Your task to perform on an android device: Go to Reddit.com Image 0: 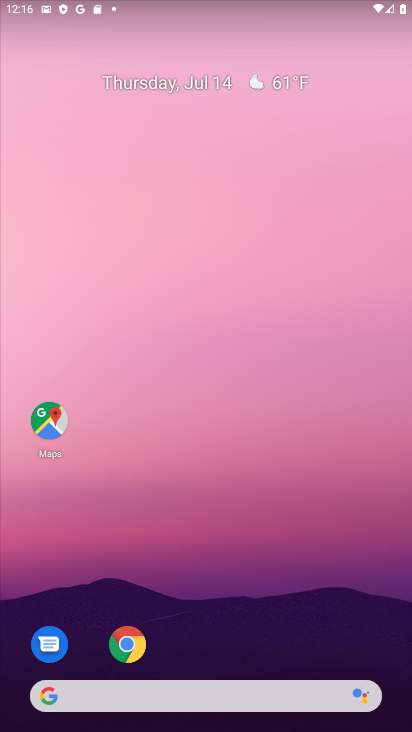
Step 0: click (118, 654)
Your task to perform on an android device: Go to Reddit.com Image 1: 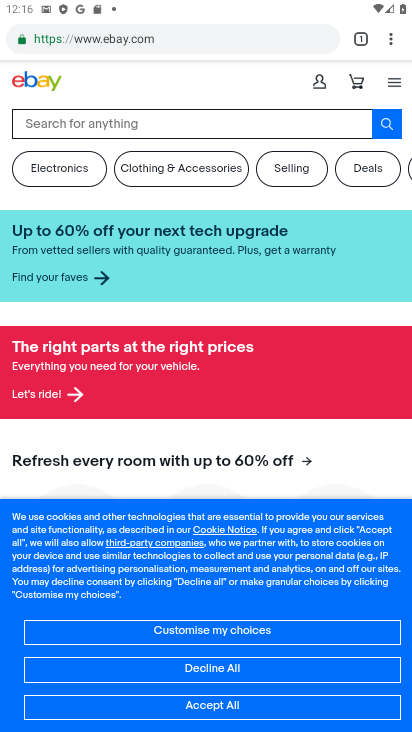
Step 1: click (187, 39)
Your task to perform on an android device: Go to Reddit.com Image 2: 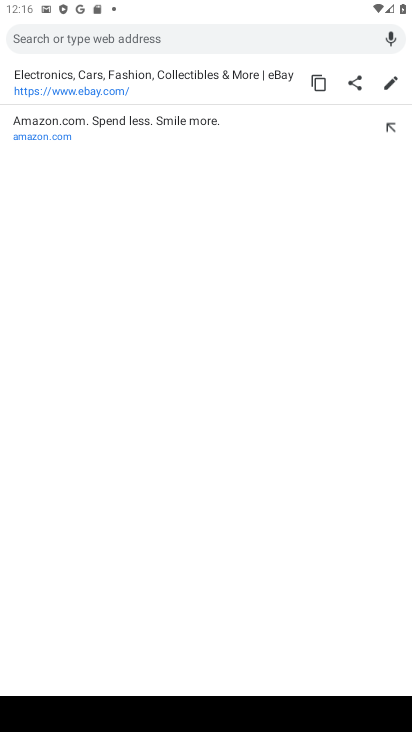
Step 2: type "Reddit.com"
Your task to perform on an android device: Go to Reddit.com Image 3: 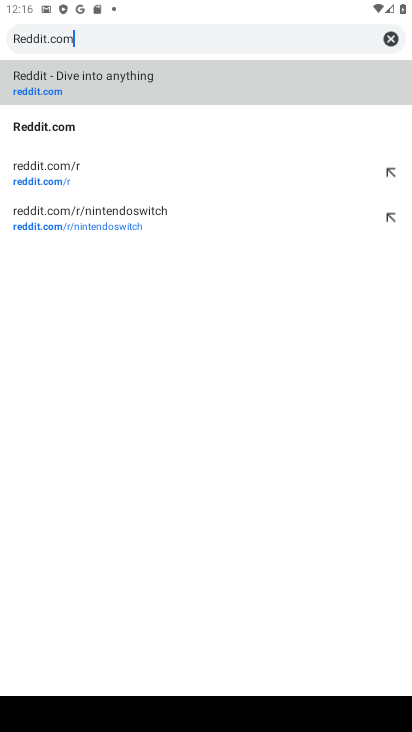
Step 3: click (114, 83)
Your task to perform on an android device: Go to Reddit.com Image 4: 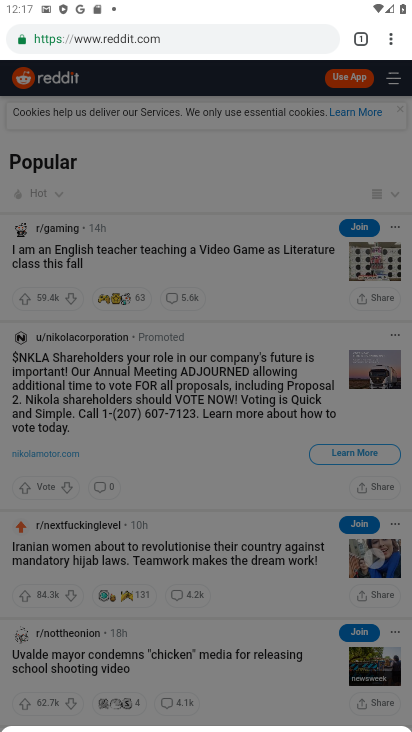
Step 4: task complete